Your task to perform on an android device: Open settings on Google Maps Image 0: 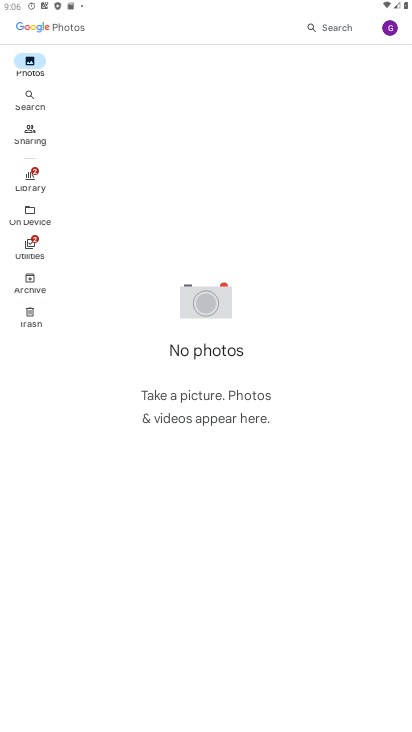
Step 0: press home button
Your task to perform on an android device: Open settings on Google Maps Image 1: 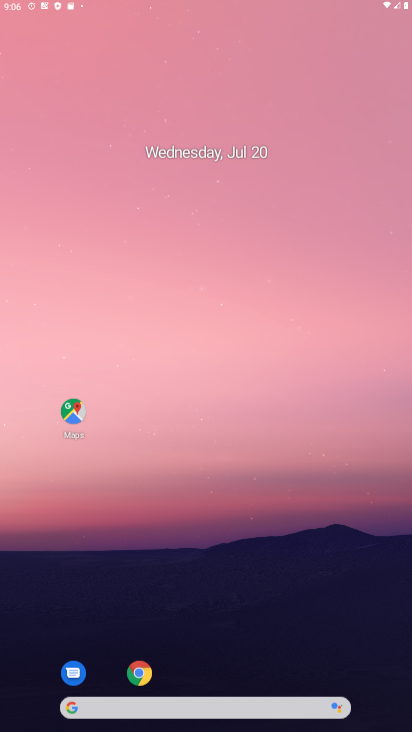
Step 1: drag from (384, 702) to (120, 53)
Your task to perform on an android device: Open settings on Google Maps Image 2: 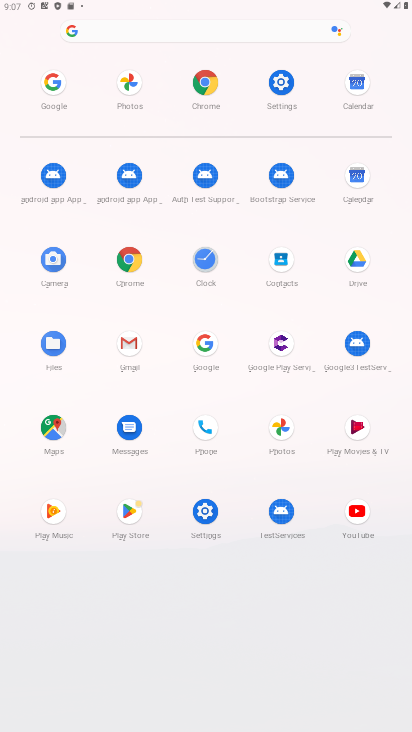
Step 2: click (56, 426)
Your task to perform on an android device: Open settings on Google Maps Image 3: 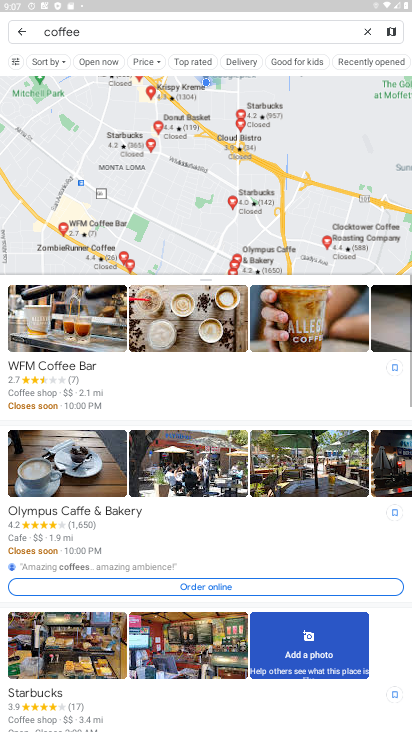
Step 3: click (364, 24)
Your task to perform on an android device: Open settings on Google Maps Image 4: 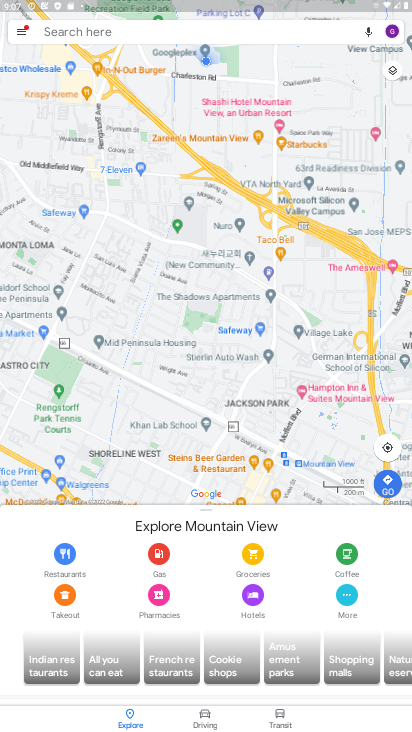
Step 4: click (21, 33)
Your task to perform on an android device: Open settings on Google Maps Image 5: 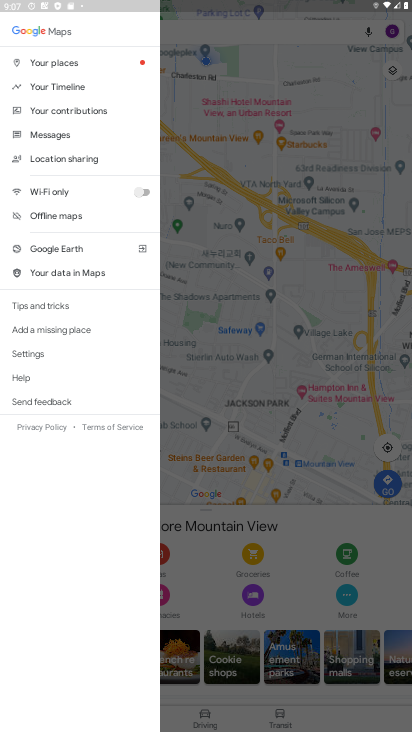
Step 5: click (28, 358)
Your task to perform on an android device: Open settings on Google Maps Image 6: 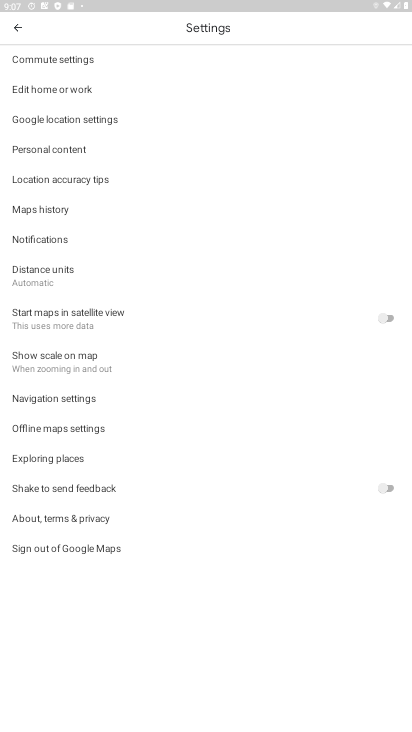
Step 6: task complete